Your task to perform on an android device: Go to Wikipedia Image 0: 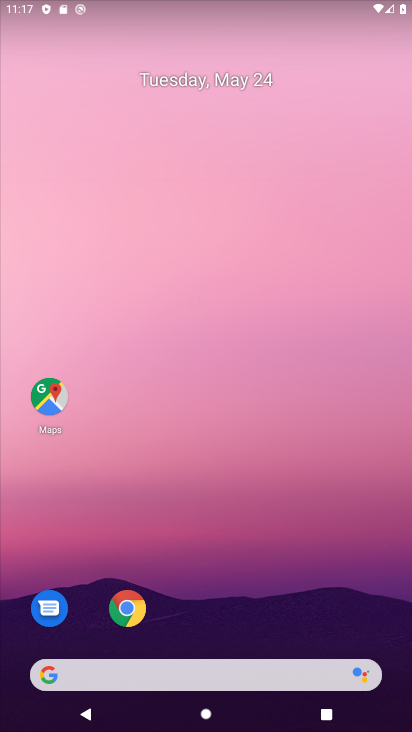
Step 0: click (125, 613)
Your task to perform on an android device: Go to Wikipedia Image 1: 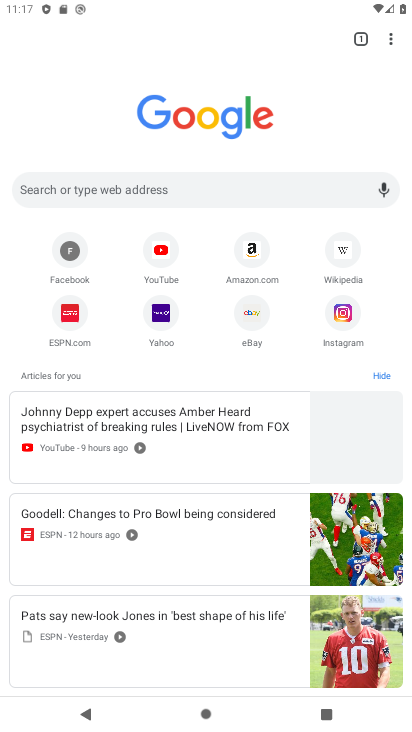
Step 1: click (346, 266)
Your task to perform on an android device: Go to Wikipedia Image 2: 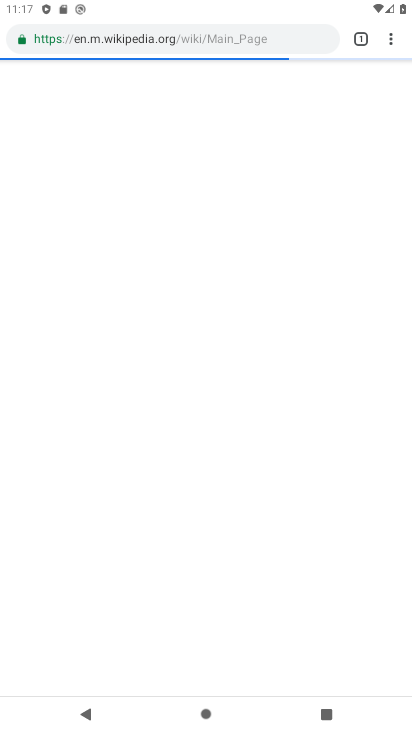
Step 2: task complete